Your task to perform on an android device: turn off picture-in-picture Image 0: 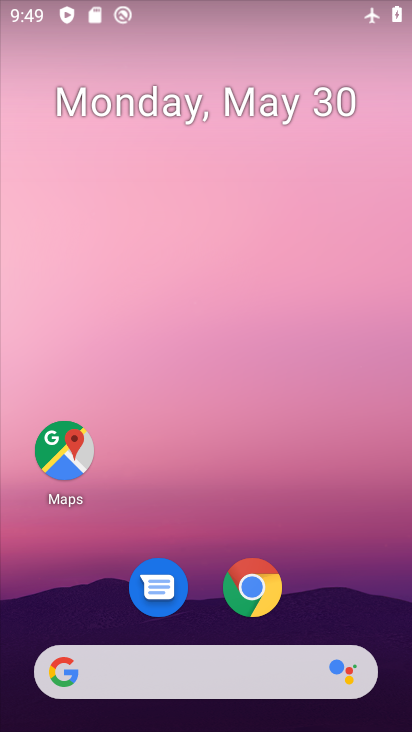
Step 0: drag from (321, 551) to (267, 31)
Your task to perform on an android device: turn off picture-in-picture Image 1: 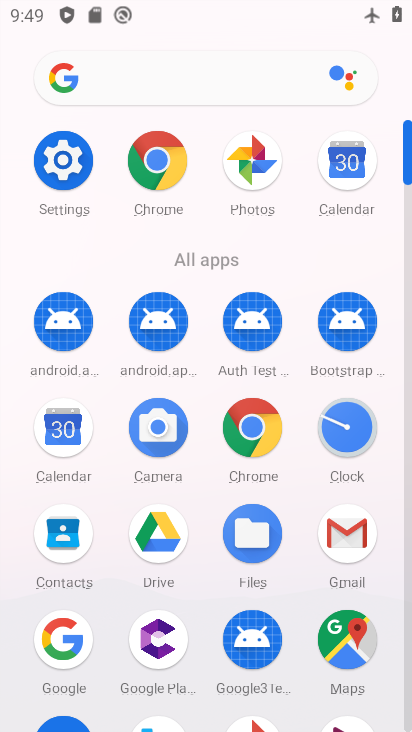
Step 1: drag from (23, 605) to (25, 161)
Your task to perform on an android device: turn off picture-in-picture Image 2: 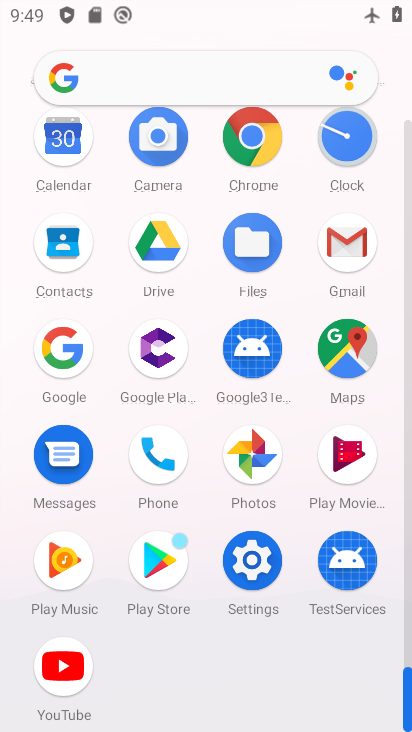
Step 2: click (247, 557)
Your task to perform on an android device: turn off picture-in-picture Image 3: 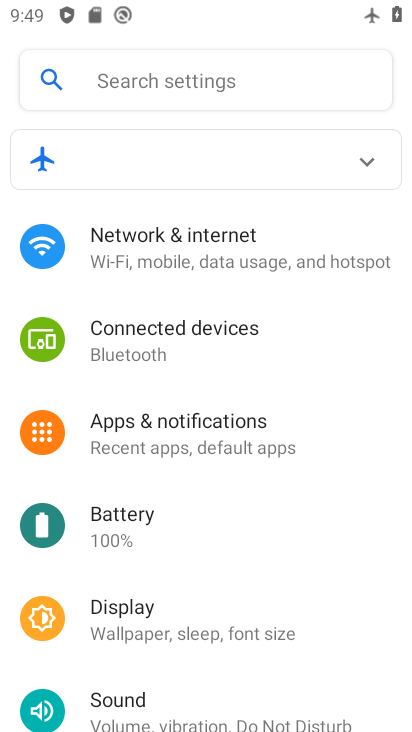
Step 3: drag from (333, 608) to (292, 199)
Your task to perform on an android device: turn off picture-in-picture Image 4: 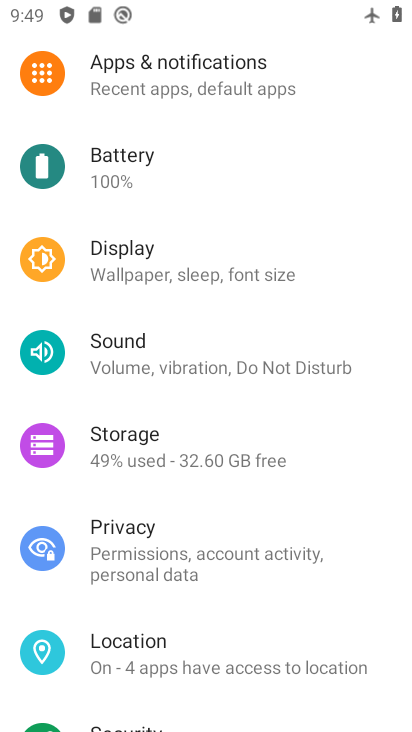
Step 4: drag from (287, 170) to (274, 458)
Your task to perform on an android device: turn off picture-in-picture Image 5: 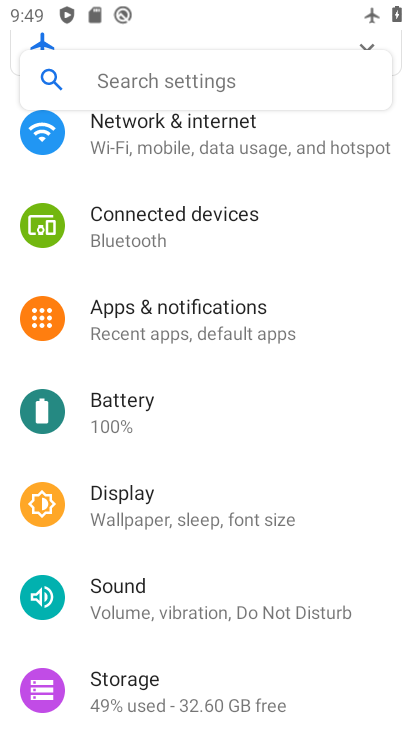
Step 5: drag from (316, 216) to (306, 564)
Your task to perform on an android device: turn off picture-in-picture Image 6: 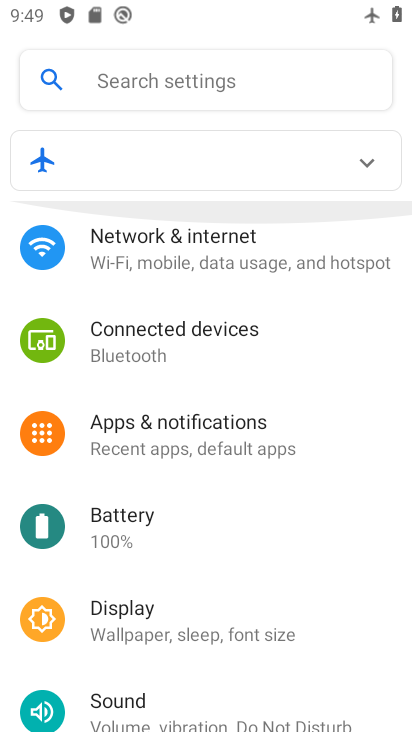
Step 6: drag from (304, 557) to (310, 217)
Your task to perform on an android device: turn off picture-in-picture Image 7: 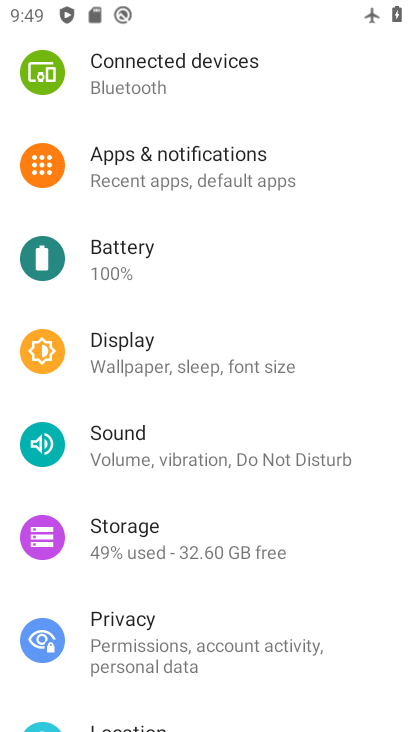
Step 7: drag from (269, 518) to (271, 177)
Your task to perform on an android device: turn off picture-in-picture Image 8: 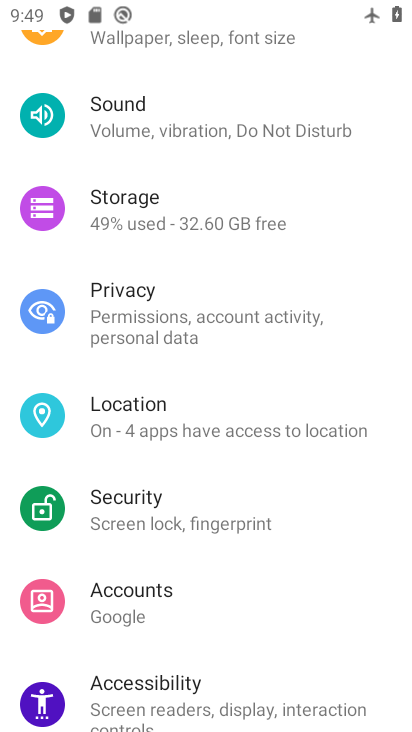
Step 8: drag from (271, 175) to (259, 561)
Your task to perform on an android device: turn off picture-in-picture Image 9: 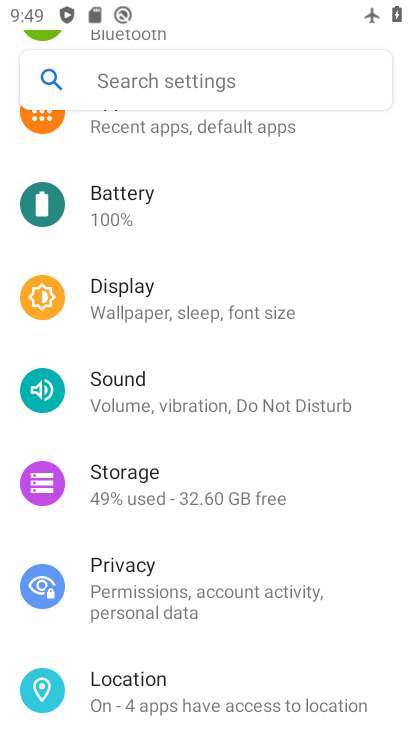
Step 9: drag from (248, 158) to (256, 476)
Your task to perform on an android device: turn off picture-in-picture Image 10: 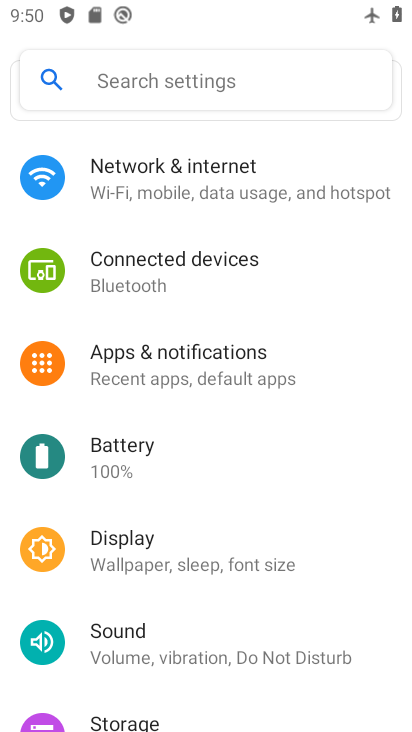
Step 10: drag from (285, 472) to (294, 166)
Your task to perform on an android device: turn off picture-in-picture Image 11: 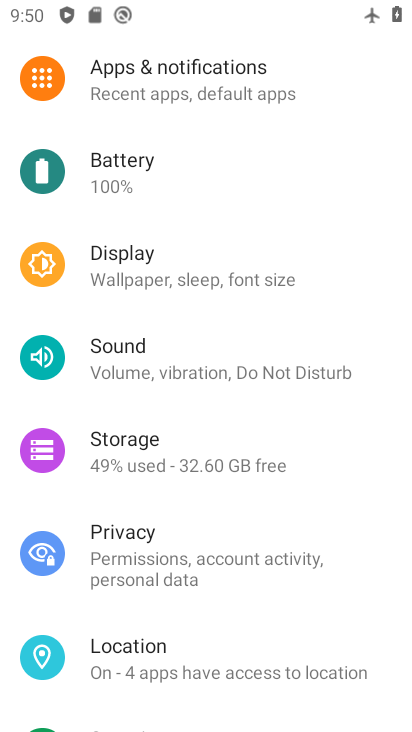
Step 11: click (288, 194)
Your task to perform on an android device: turn off picture-in-picture Image 12: 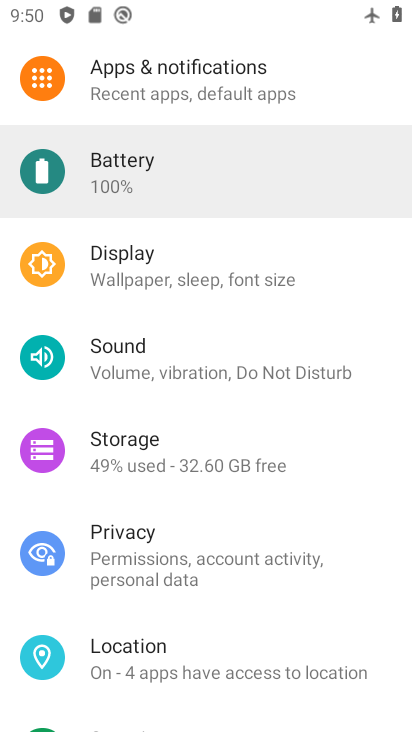
Step 12: click (277, 529)
Your task to perform on an android device: turn off picture-in-picture Image 13: 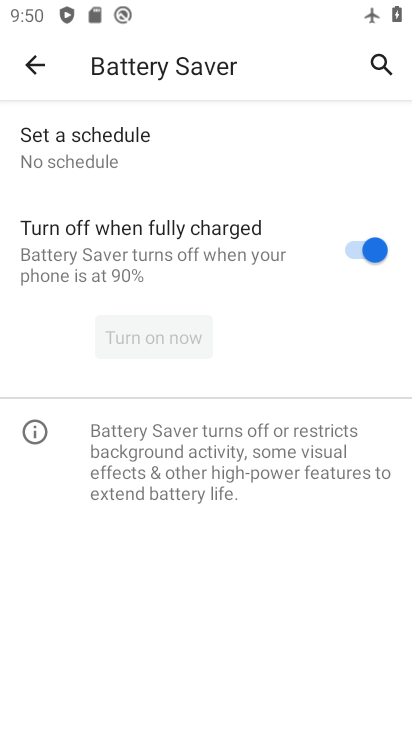
Step 13: click (27, 61)
Your task to perform on an android device: turn off picture-in-picture Image 14: 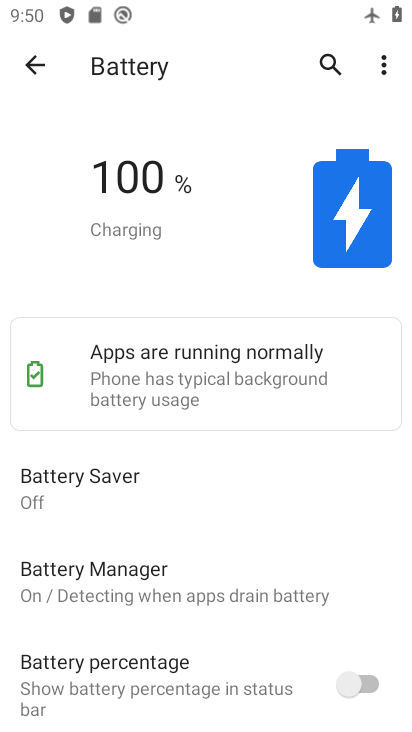
Step 14: click (28, 62)
Your task to perform on an android device: turn off picture-in-picture Image 15: 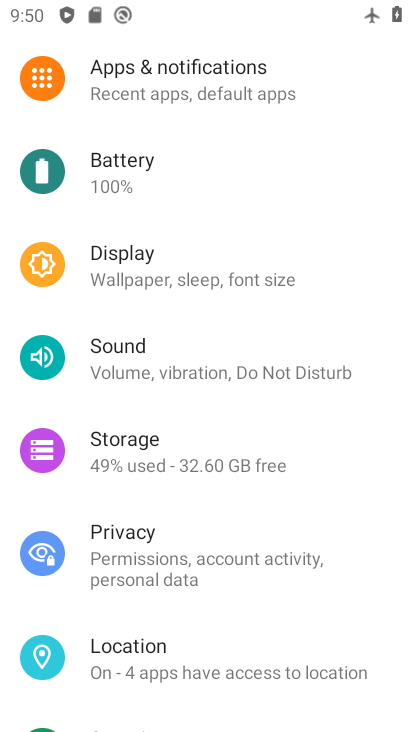
Step 15: drag from (343, 116) to (267, 551)
Your task to perform on an android device: turn off picture-in-picture Image 16: 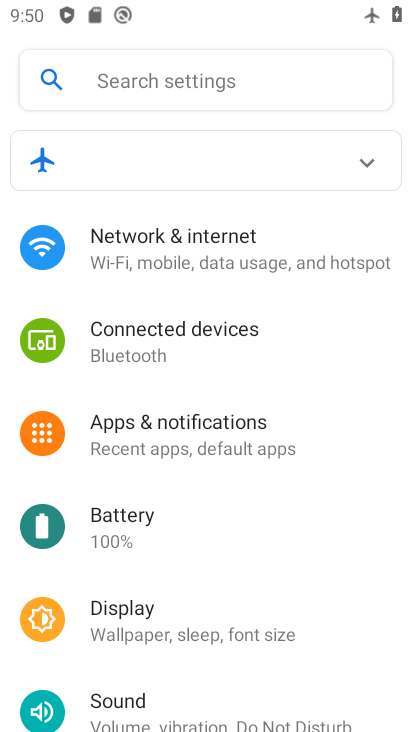
Step 16: click (237, 438)
Your task to perform on an android device: turn off picture-in-picture Image 17: 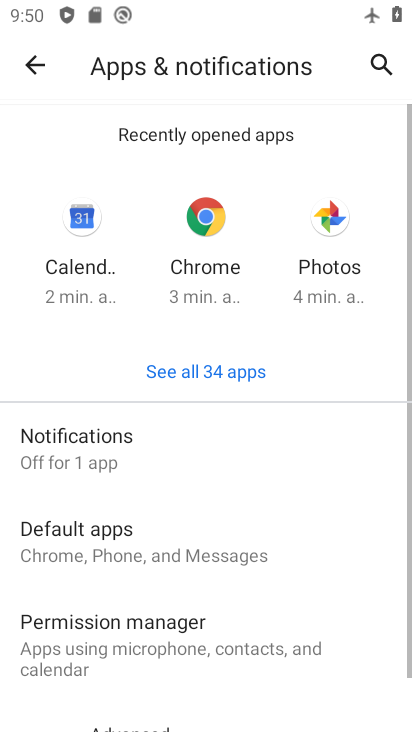
Step 17: drag from (305, 642) to (305, 133)
Your task to perform on an android device: turn off picture-in-picture Image 18: 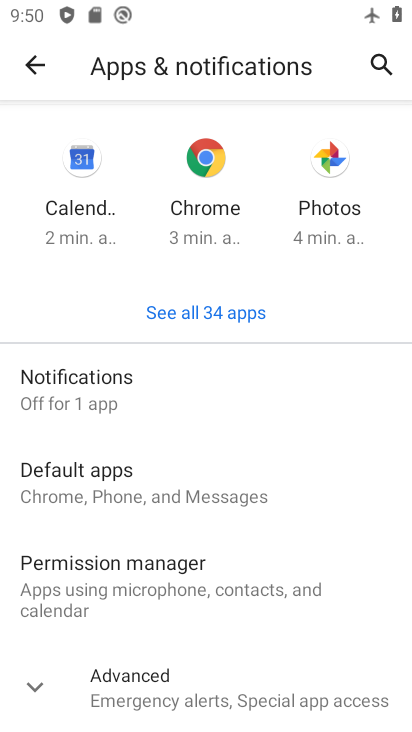
Step 18: click (217, 697)
Your task to perform on an android device: turn off picture-in-picture Image 19: 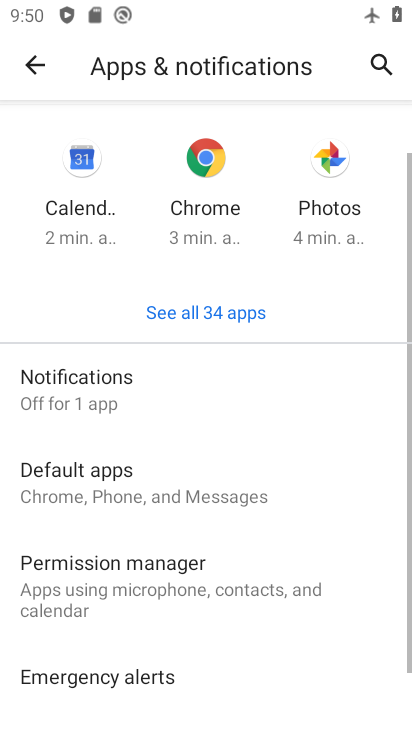
Step 19: drag from (253, 680) to (297, 141)
Your task to perform on an android device: turn off picture-in-picture Image 20: 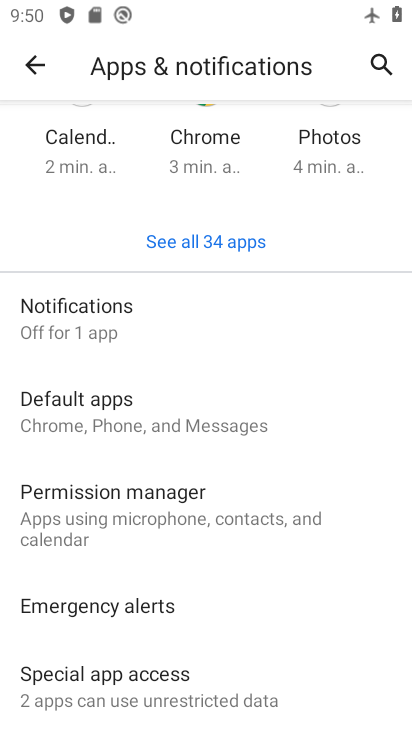
Step 20: click (113, 681)
Your task to perform on an android device: turn off picture-in-picture Image 21: 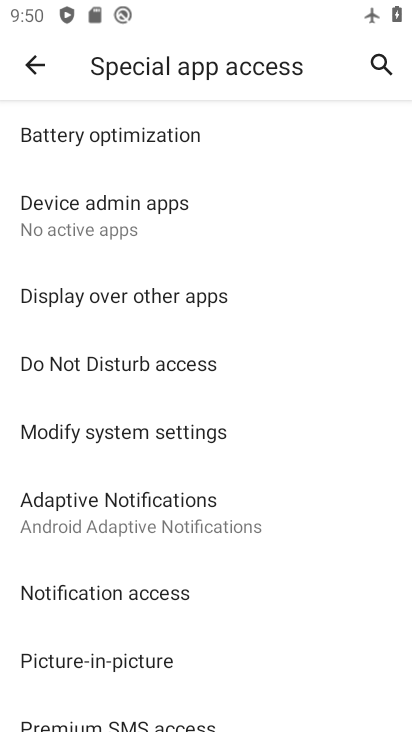
Step 21: drag from (240, 645) to (261, 348)
Your task to perform on an android device: turn off picture-in-picture Image 22: 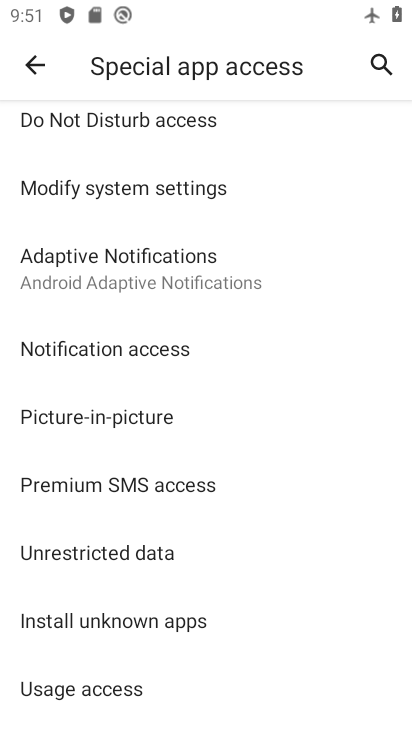
Step 22: click (162, 414)
Your task to perform on an android device: turn off picture-in-picture Image 23: 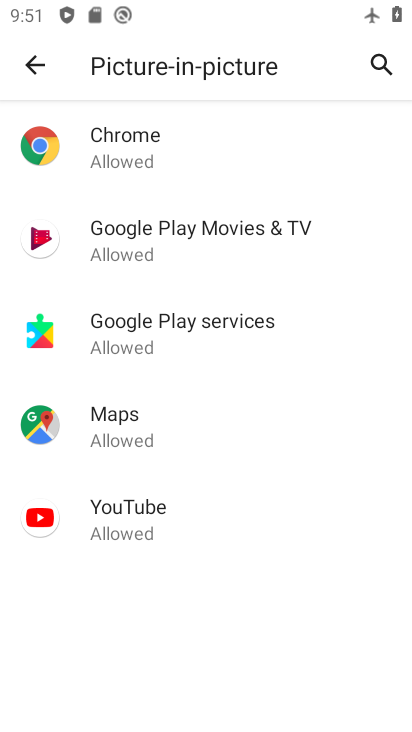
Step 23: click (182, 149)
Your task to perform on an android device: turn off picture-in-picture Image 24: 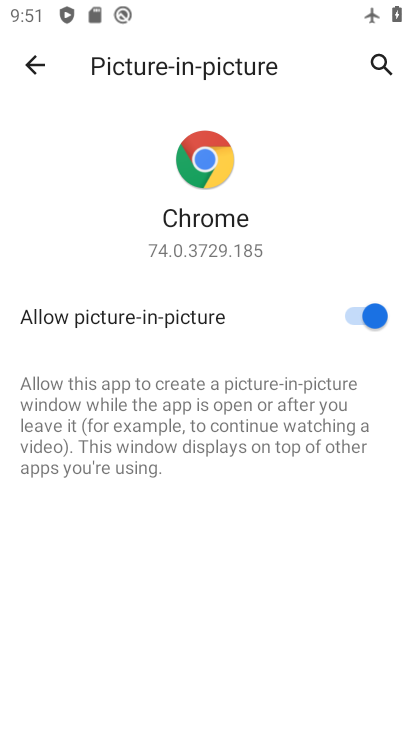
Step 24: click (345, 312)
Your task to perform on an android device: turn off picture-in-picture Image 25: 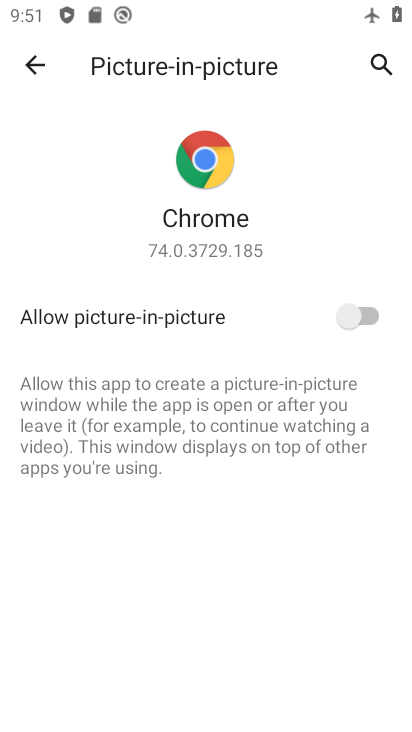
Step 25: click (26, 67)
Your task to perform on an android device: turn off picture-in-picture Image 26: 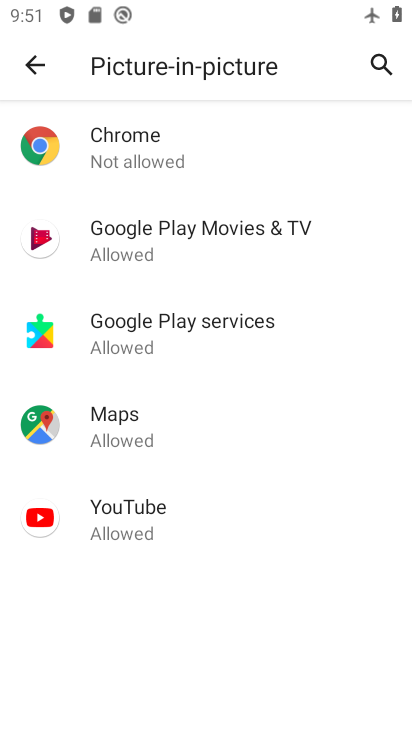
Step 26: click (123, 245)
Your task to perform on an android device: turn off picture-in-picture Image 27: 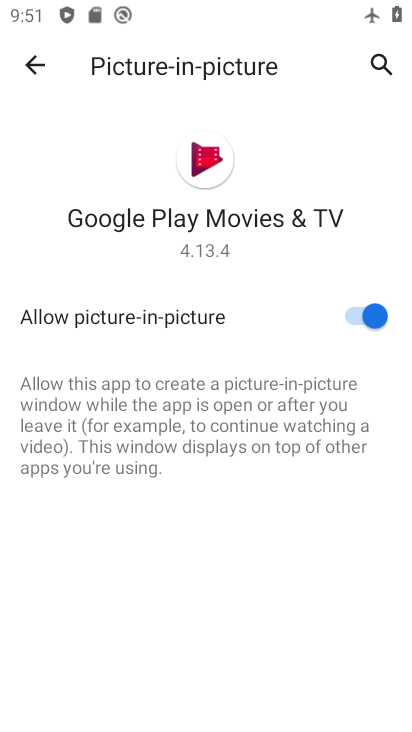
Step 27: click (355, 313)
Your task to perform on an android device: turn off picture-in-picture Image 28: 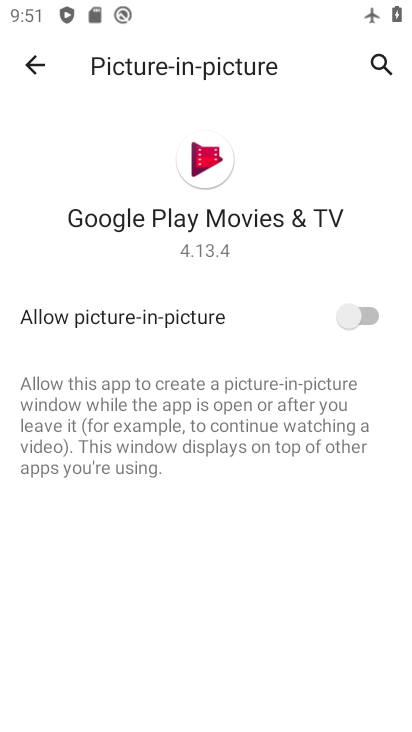
Step 28: click (49, 67)
Your task to perform on an android device: turn off picture-in-picture Image 29: 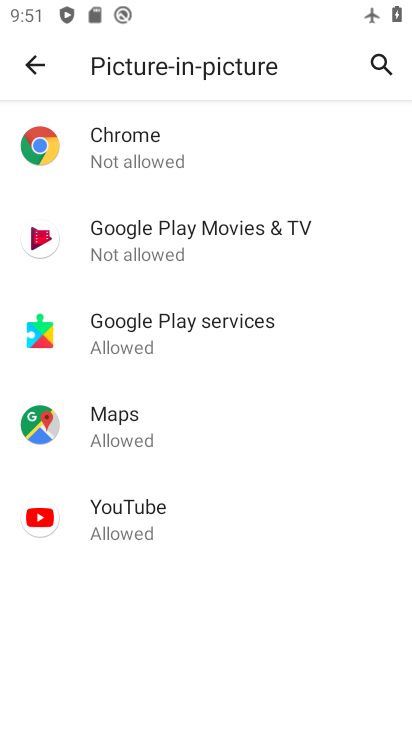
Step 29: click (123, 341)
Your task to perform on an android device: turn off picture-in-picture Image 30: 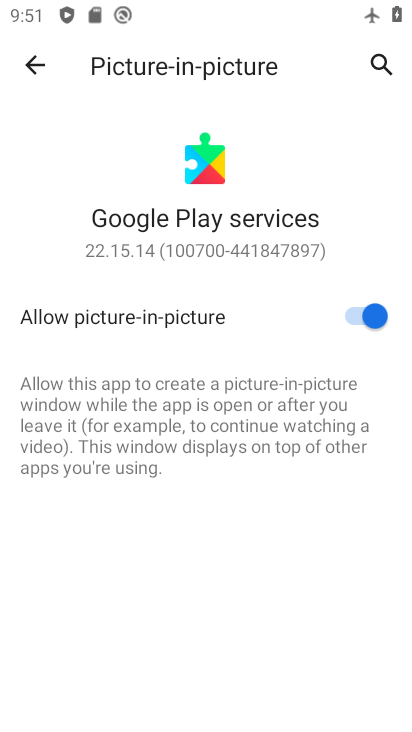
Step 30: click (360, 313)
Your task to perform on an android device: turn off picture-in-picture Image 31: 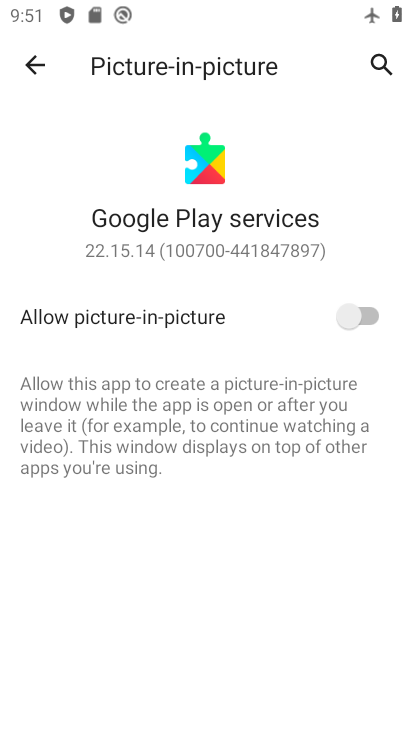
Step 31: click (20, 51)
Your task to perform on an android device: turn off picture-in-picture Image 32: 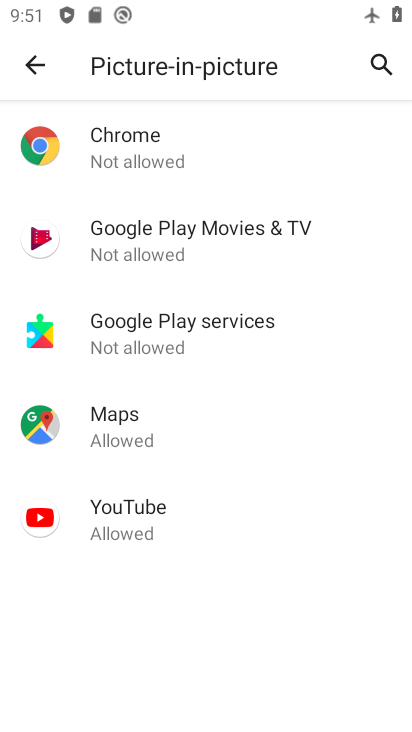
Step 32: click (128, 439)
Your task to perform on an android device: turn off picture-in-picture Image 33: 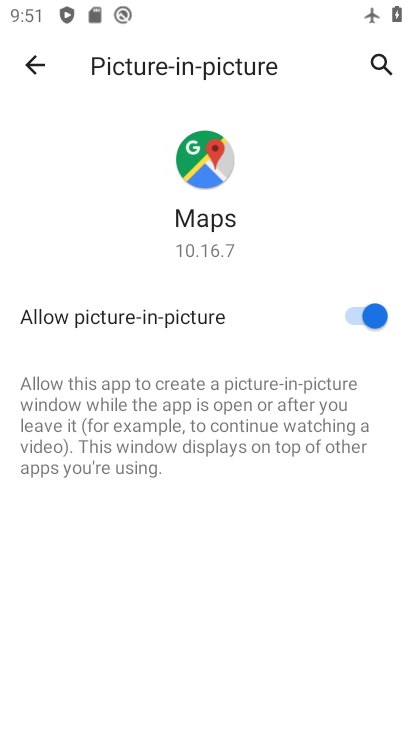
Step 33: click (346, 320)
Your task to perform on an android device: turn off picture-in-picture Image 34: 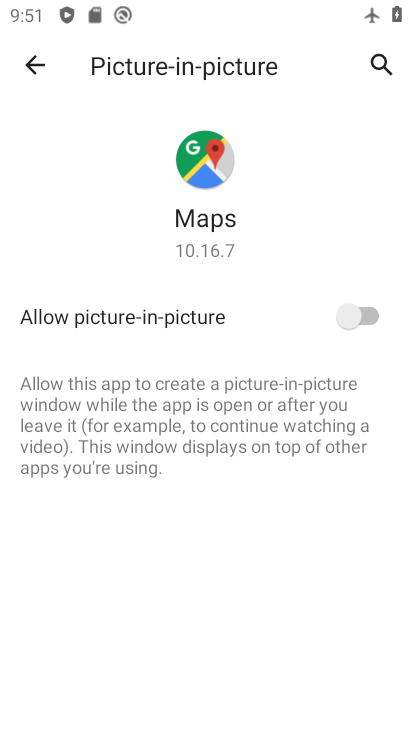
Step 34: click (33, 61)
Your task to perform on an android device: turn off picture-in-picture Image 35: 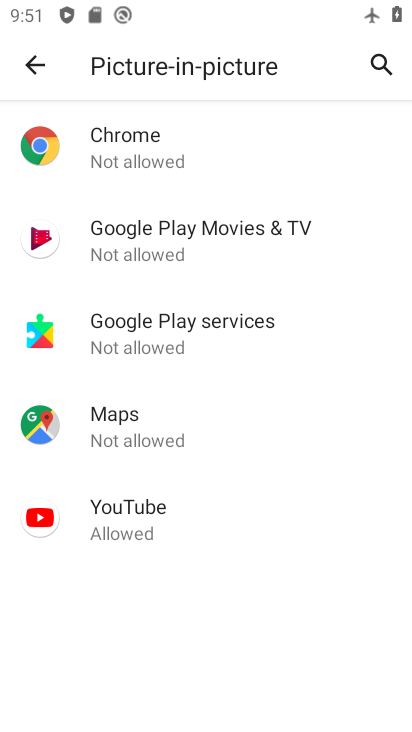
Step 35: click (153, 527)
Your task to perform on an android device: turn off picture-in-picture Image 36: 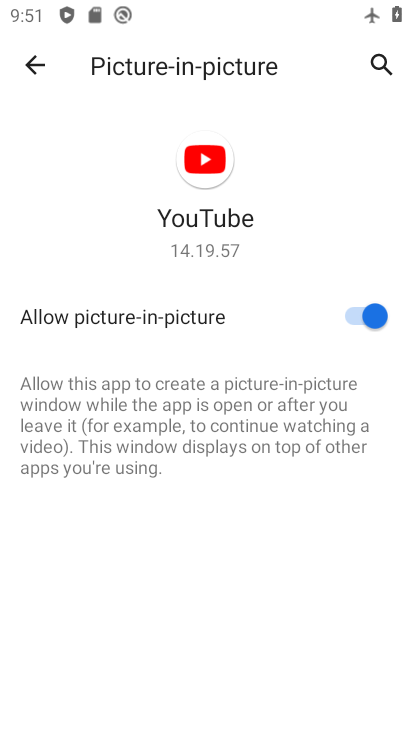
Step 36: click (356, 304)
Your task to perform on an android device: turn off picture-in-picture Image 37: 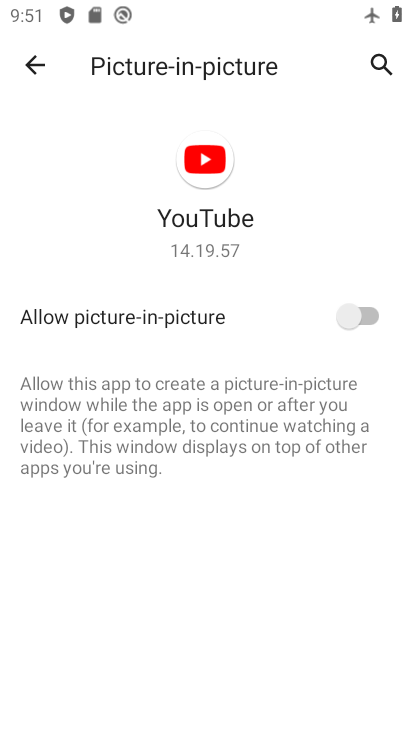
Step 37: click (50, 68)
Your task to perform on an android device: turn off picture-in-picture Image 38: 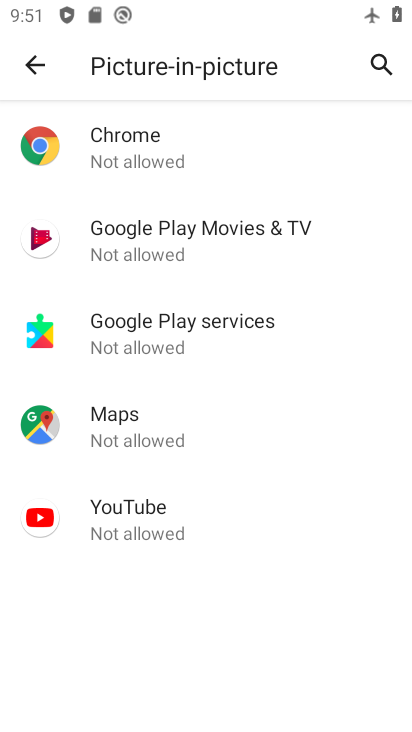
Step 38: task complete